Your task to perform on an android device: toggle pop-ups in chrome Image 0: 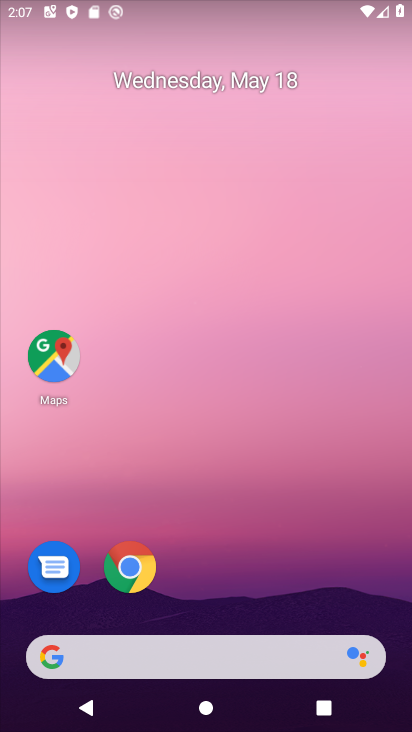
Step 0: drag from (252, 581) to (285, 246)
Your task to perform on an android device: toggle pop-ups in chrome Image 1: 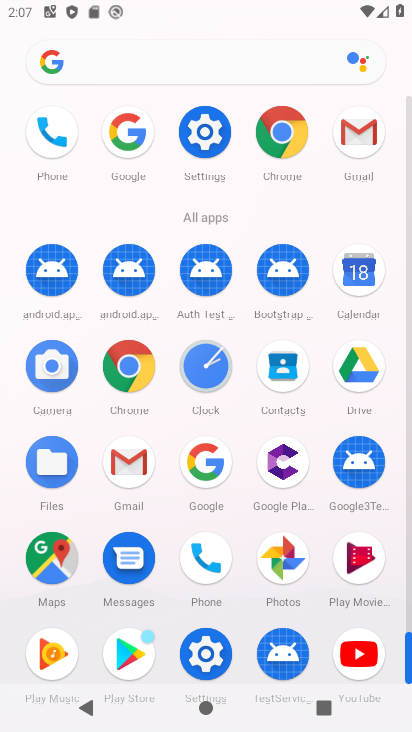
Step 1: click (283, 118)
Your task to perform on an android device: toggle pop-ups in chrome Image 2: 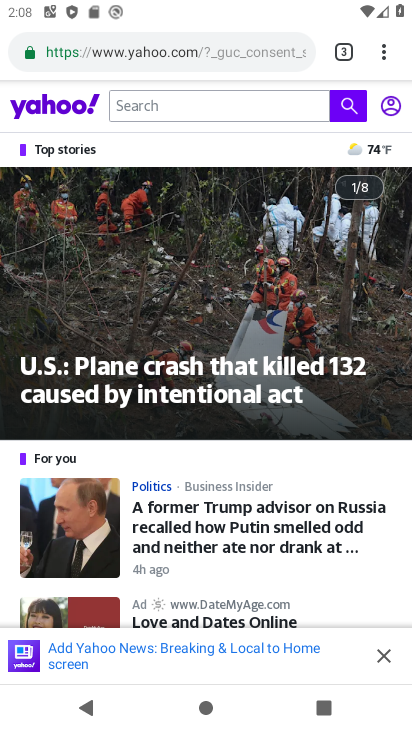
Step 2: click (379, 49)
Your task to perform on an android device: toggle pop-ups in chrome Image 3: 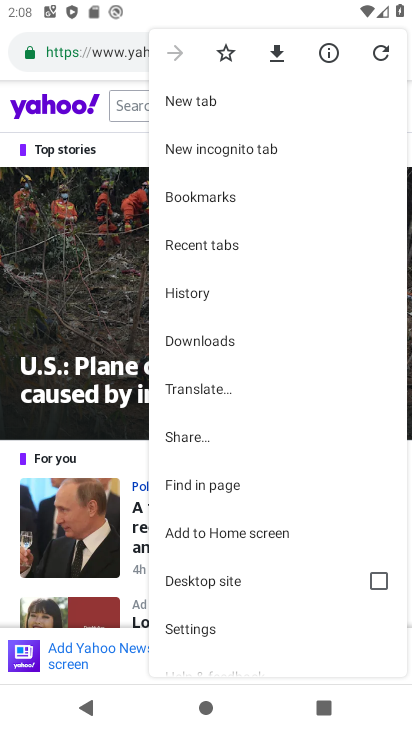
Step 3: click (210, 630)
Your task to perform on an android device: toggle pop-ups in chrome Image 4: 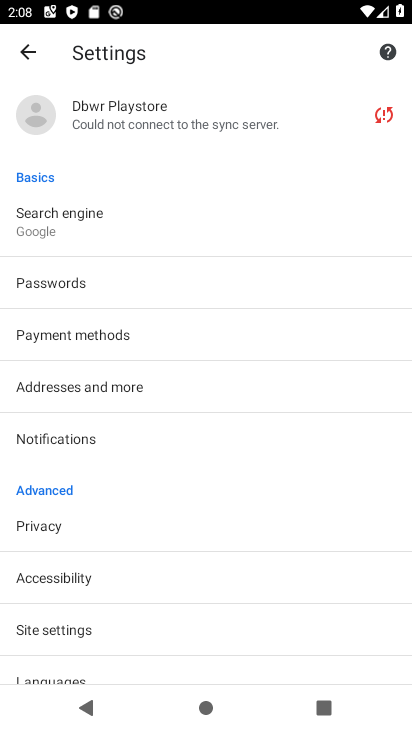
Step 4: drag from (180, 569) to (234, 290)
Your task to perform on an android device: toggle pop-ups in chrome Image 5: 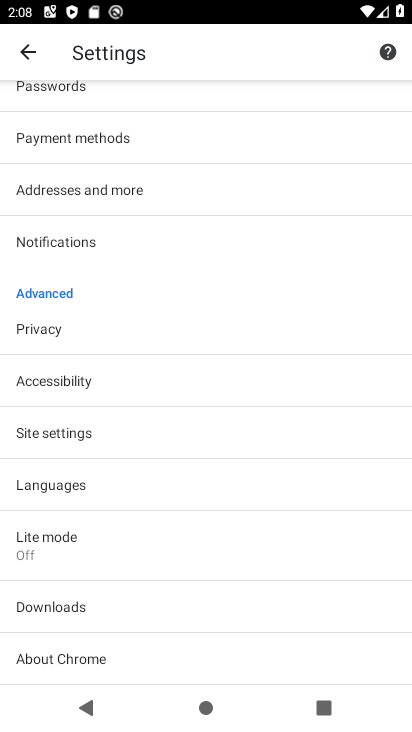
Step 5: click (128, 437)
Your task to perform on an android device: toggle pop-ups in chrome Image 6: 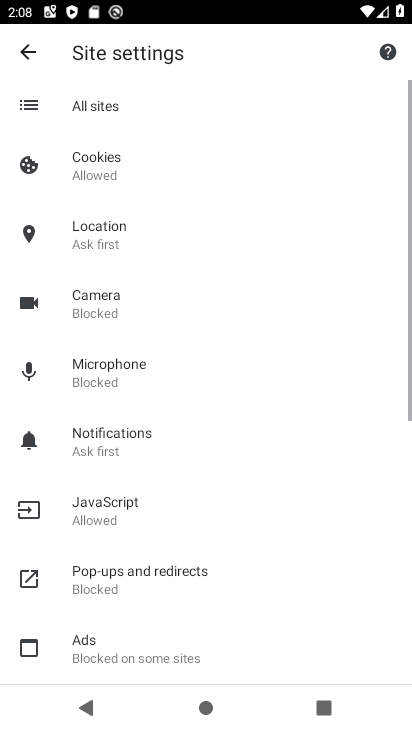
Step 6: drag from (208, 593) to (213, 384)
Your task to perform on an android device: toggle pop-ups in chrome Image 7: 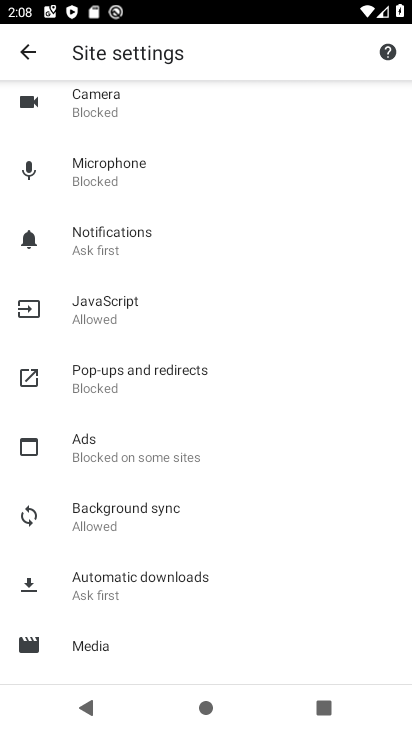
Step 7: click (151, 371)
Your task to perform on an android device: toggle pop-ups in chrome Image 8: 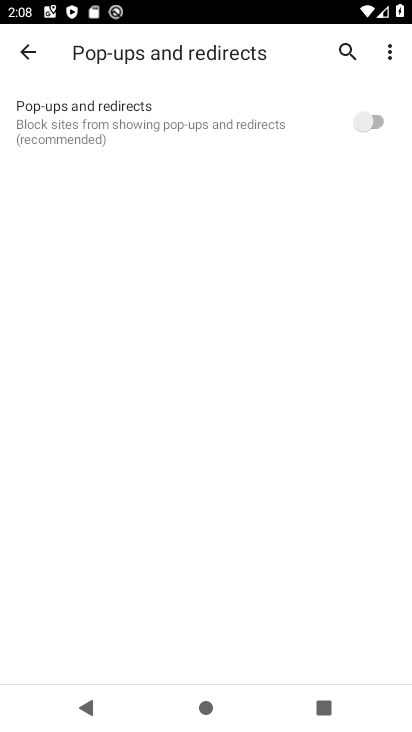
Step 8: click (361, 126)
Your task to perform on an android device: toggle pop-ups in chrome Image 9: 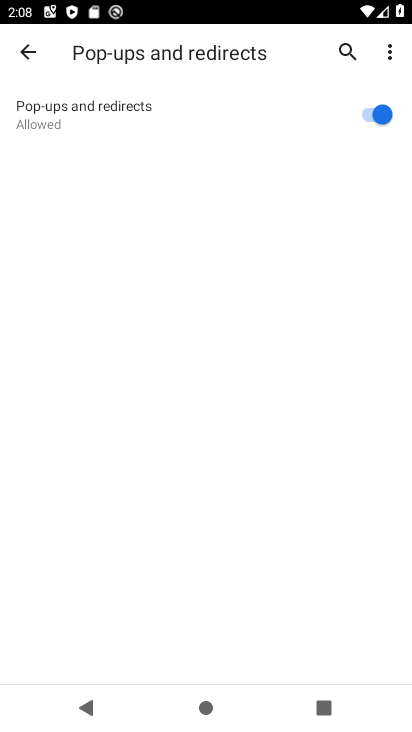
Step 9: task complete